Your task to perform on an android device: Go to Yahoo.com Image 0: 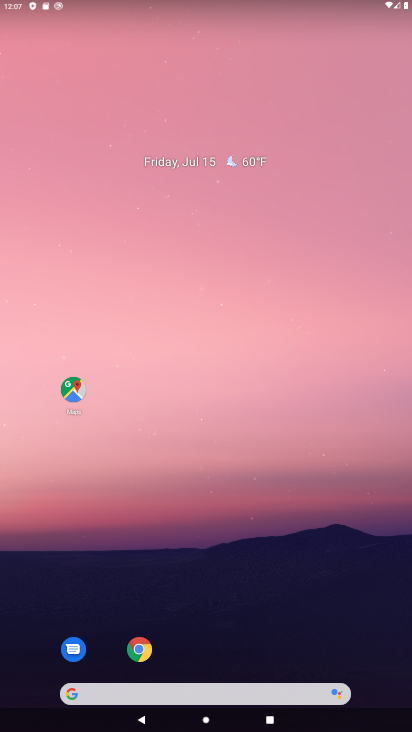
Step 0: drag from (151, 675) to (187, 209)
Your task to perform on an android device: Go to Yahoo.com Image 1: 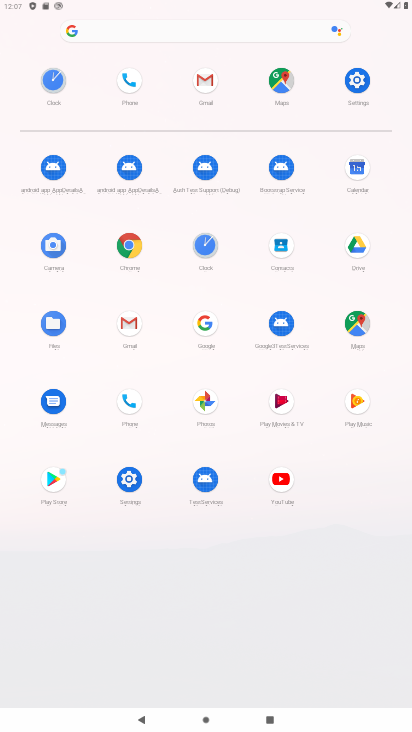
Step 1: click (121, 253)
Your task to perform on an android device: Go to Yahoo.com Image 2: 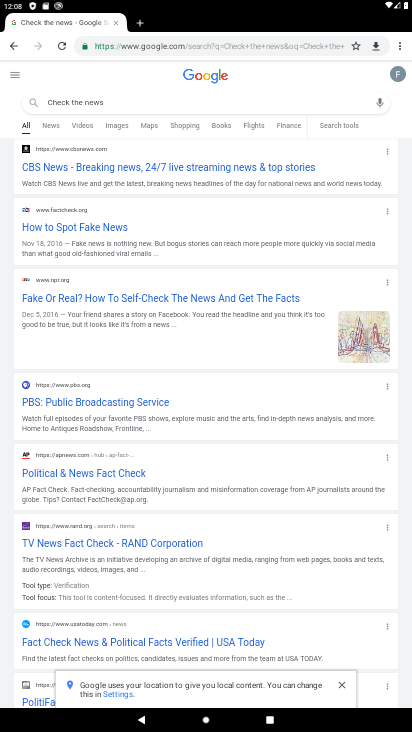
Step 2: click (146, 25)
Your task to perform on an android device: Go to Yahoo.com Image 3: 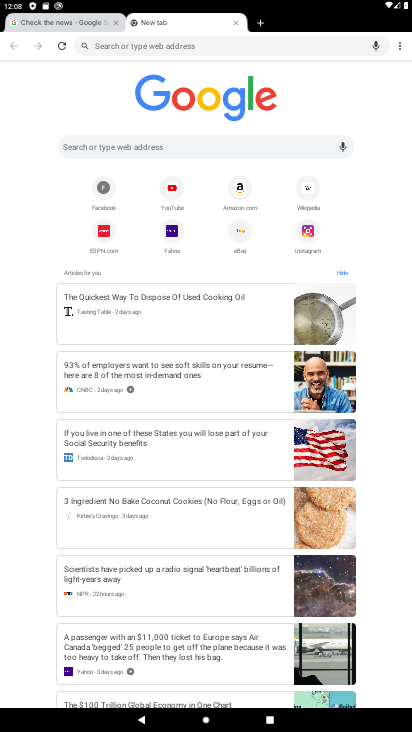
Step 3: click (161, 232)
Your task to perform on an android device: Go to Yahoo.com Image 4: 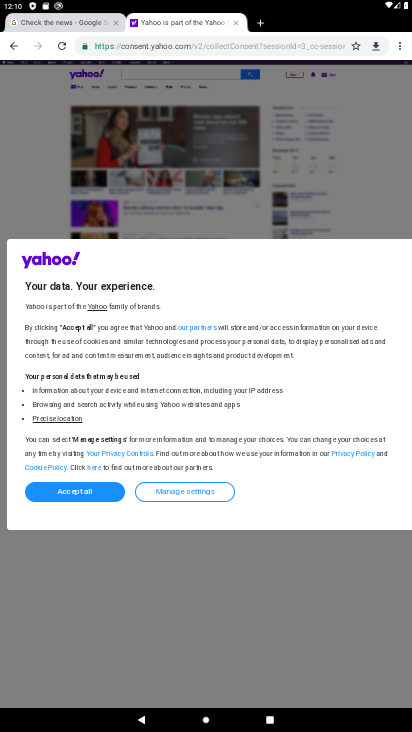
Step 4: task complete